Your task to perform on an android device: Open calendar and show me the second week of next month Image 0: 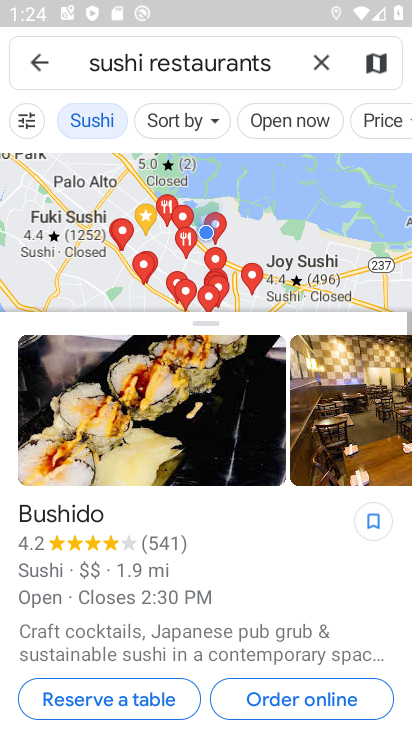
Step 0: press home button
Your task to perform on an android device: Open calendar and show me the second week of next month Image 1: 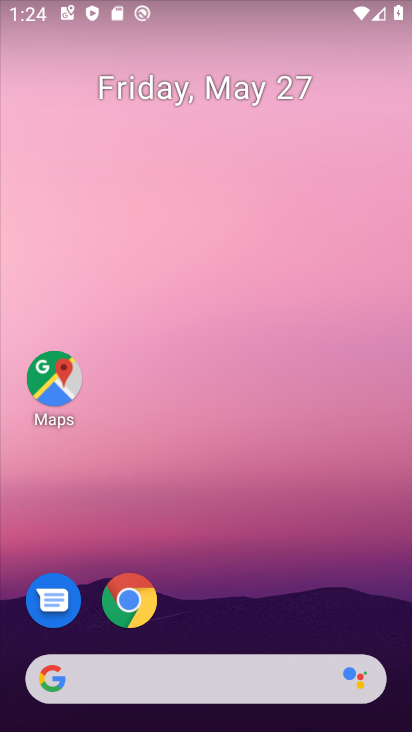
Step 1: drag from (230, 717) to (238, 127)
Your task to perform on an android device: Open calendar and show me the second week of next month Image 2: 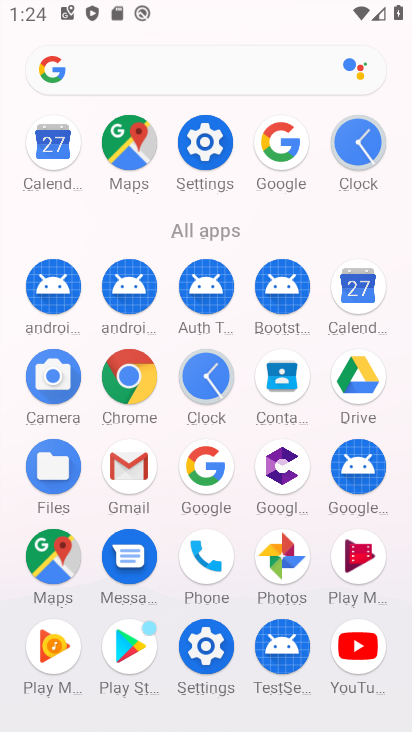
Step 2: click (348, 289)
Your task to perform on an android device: Open calendar and show me the second week of next month Image 3: 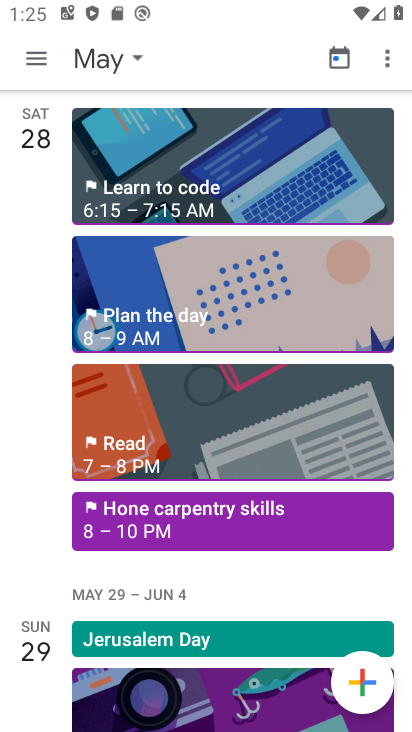
Step 3: click (125, 57)
Your task to perform on an android device: Open calendar and show me the second week of next month Image 4: 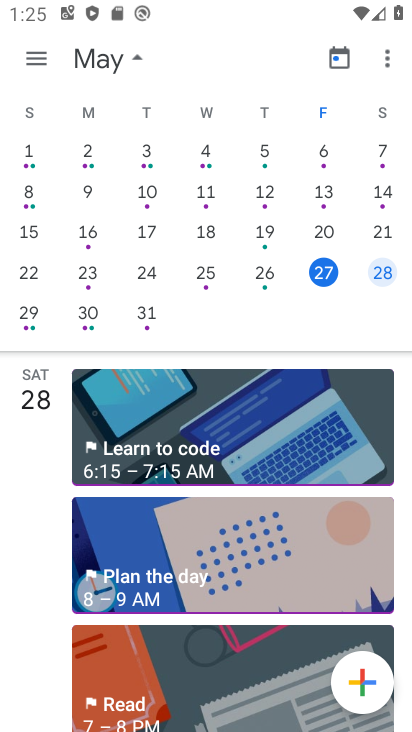
Step 4: drag from (351, 241) to (7, 185)
Your task to perform on an android device: Open calendar and show me the second week of next month Image 5: 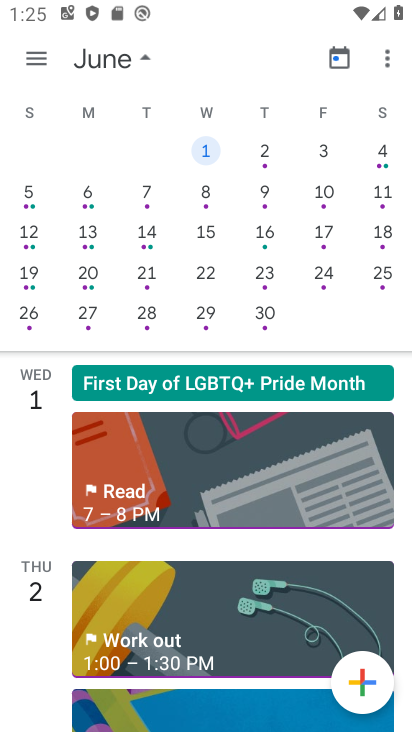
Step 5: click (85, 228)
Your task to perform on an android device: Open calendar and show me the second week of next month Image 6: 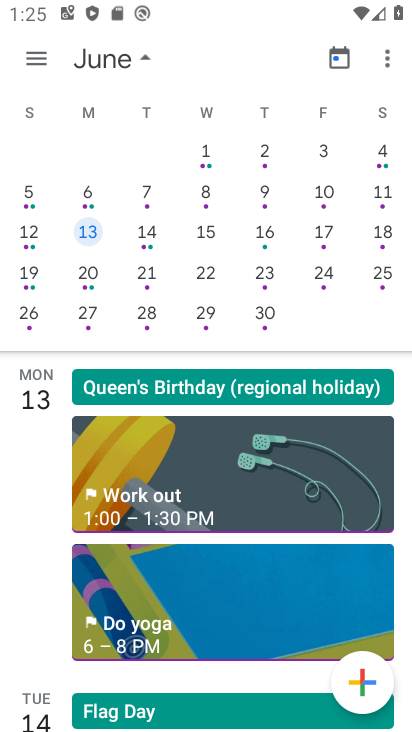
Step 6: click (34, 51)
Your task to perform on an android device: Open calendar and show me the second week of next month Image 7: 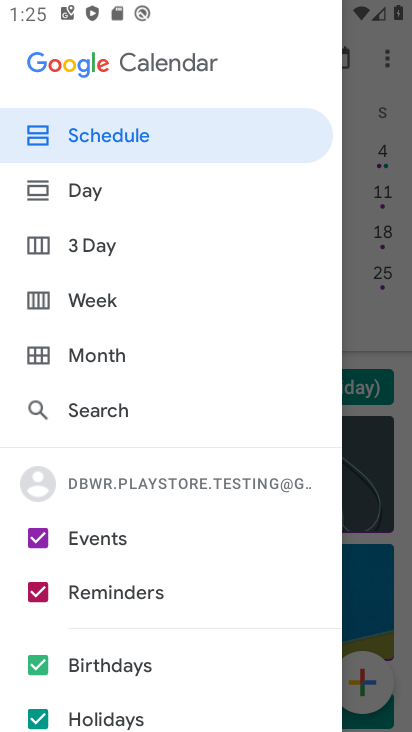
Step 7: click (96, 298)
Your task to perform on an android device: Open calendar and show me the second week of next month Image 8: 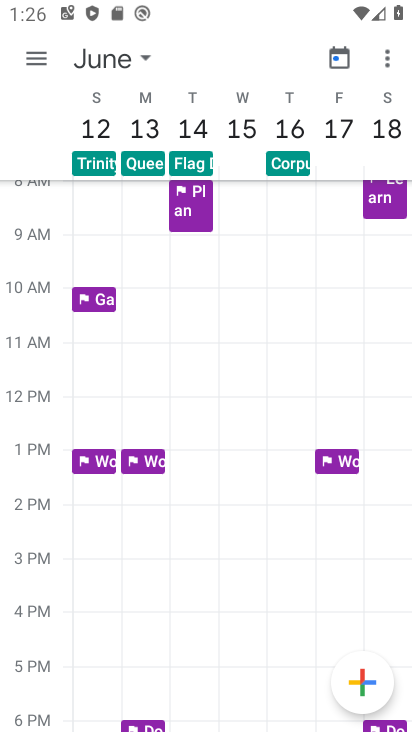
Step 8: task complete